Your task to perform on an android device: show emergency info Image 0: 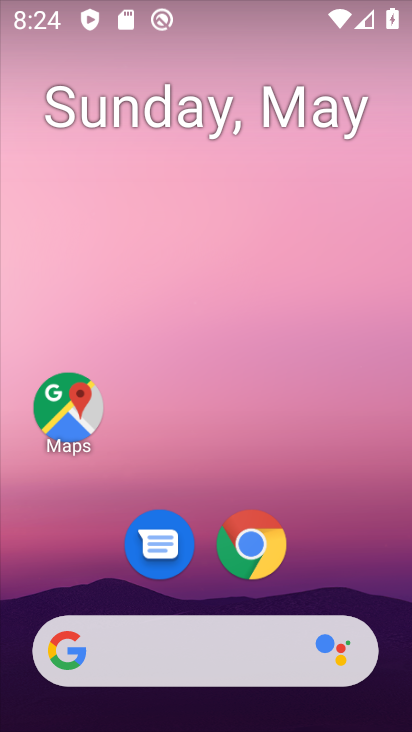
Step 0: drag from (369, 564) to (409, 195)
Your task to perform on an android device: show emergency info Image 1: 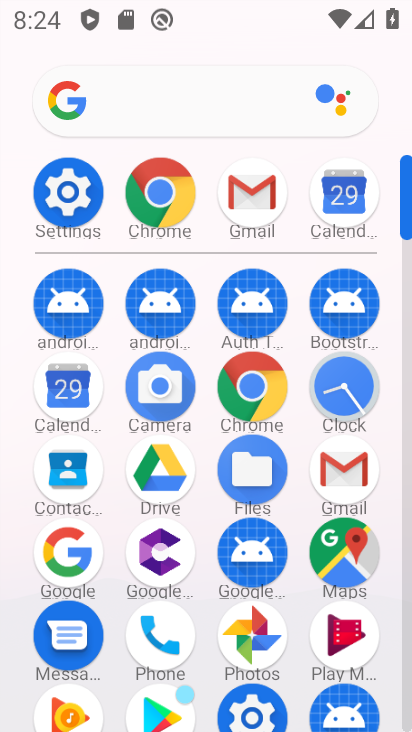
Step 1: click (77, 163)
Your task to perform on an android device: show emergency info Image 2: 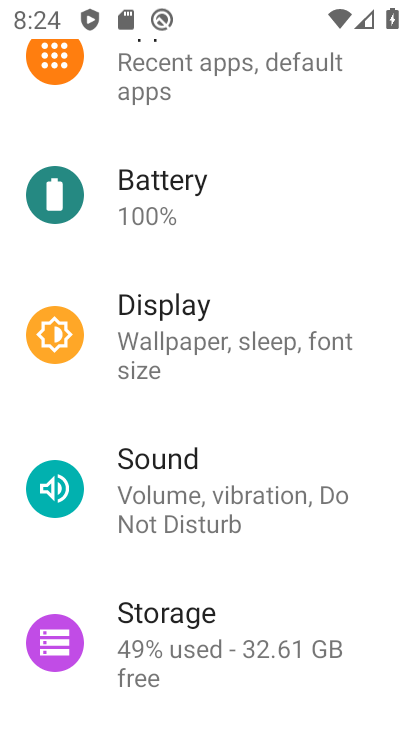
Step 2: drag from (300, 619) to (306, 156)
Your task to perform on an android device: show emergency info Image 3: 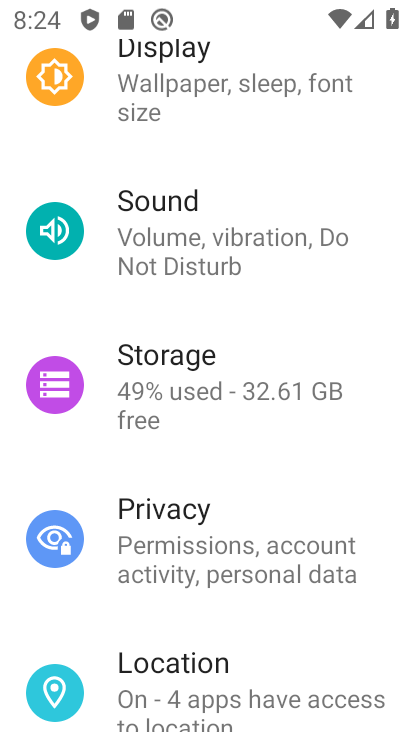
Step 3: drag from (260, 683) to (306, 272)
Your task to perform on an android device: show emergency info Image 4: 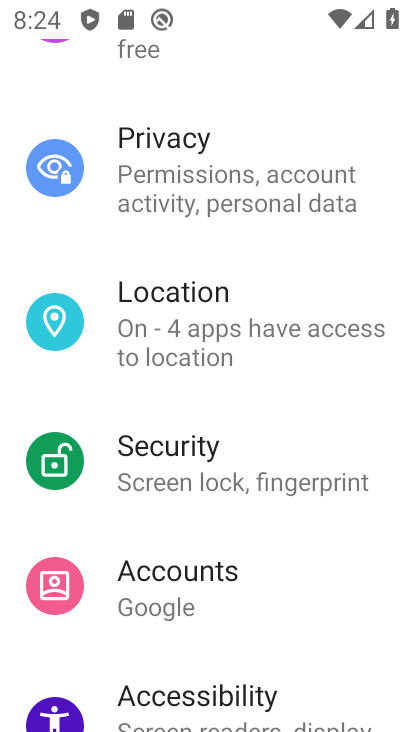
Step 4: drag from (202, 640) to (257, 159)
Your task to perform on an android device: show emergency info Image 5: 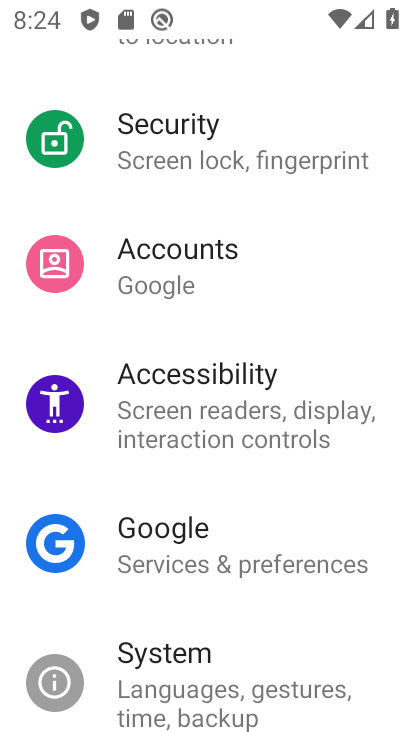
Step 5: drag from (231, 697) to (306, 165)
Your task to perform on an android device: show emergency info Image 6: 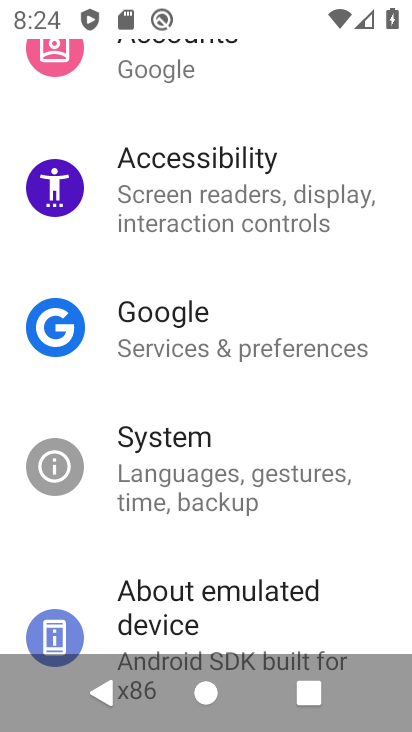
Step 6: drag from (270, 676) to (318, 307)
Your task to perform on an android device: show emergency info Image 7: 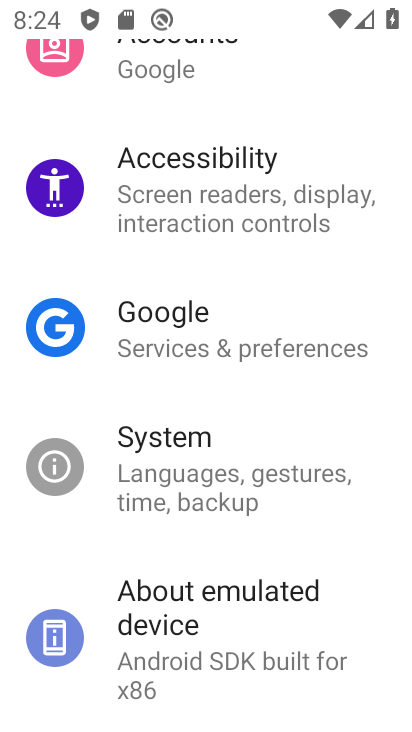
Step 7: click (305, 637)
Your task to perform on an android device: show emergency info Image 8: 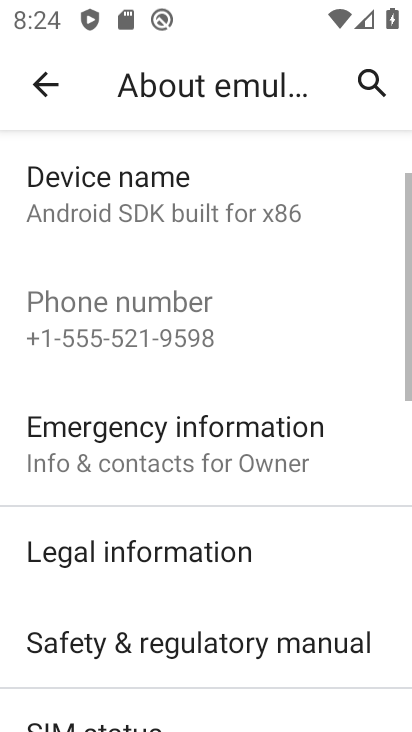
Step 8: click (146, 457)
Your task to perform on an android device: show emergency info Image 9: 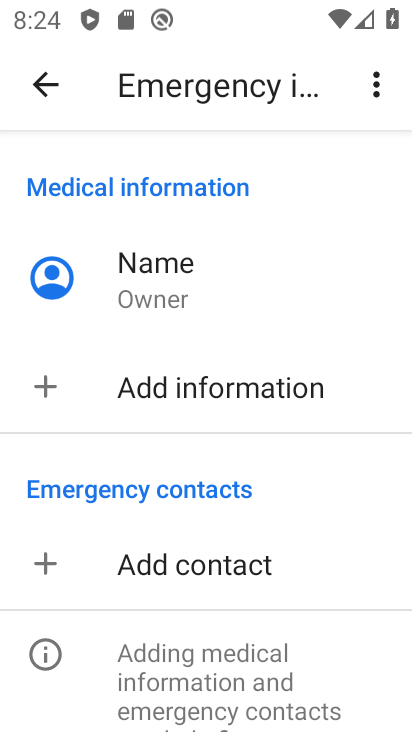
Step 9: click (223, 185)
Your task to perform on an android device: show emergency info Image 10: 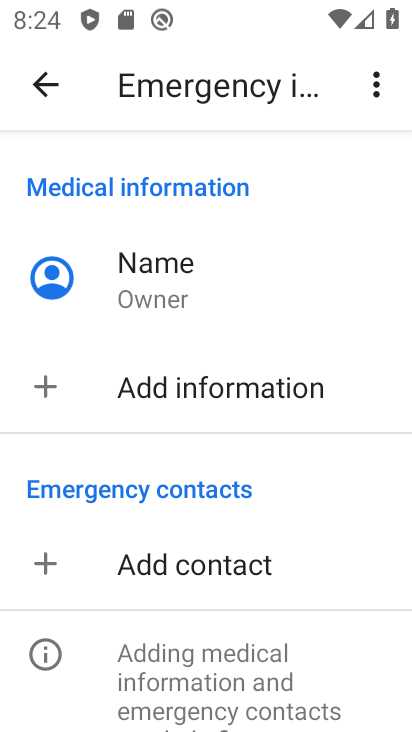
Step 10: task complete